Your task to perform on an android device: Open accessibility settings Image 0: 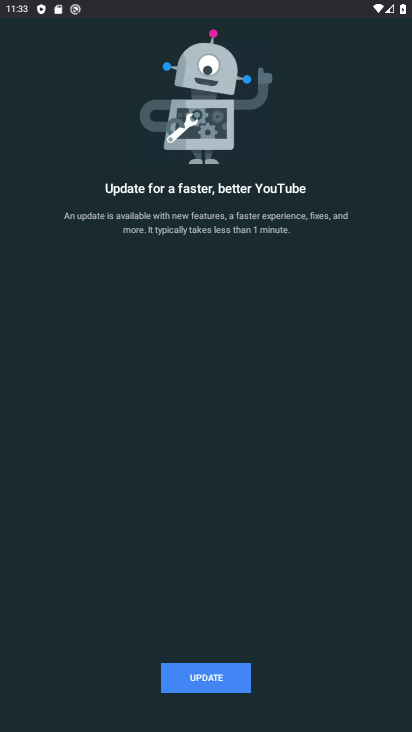
Step 0: press home button
Your task to perform on an android device: Open accessibility settings Image 1: 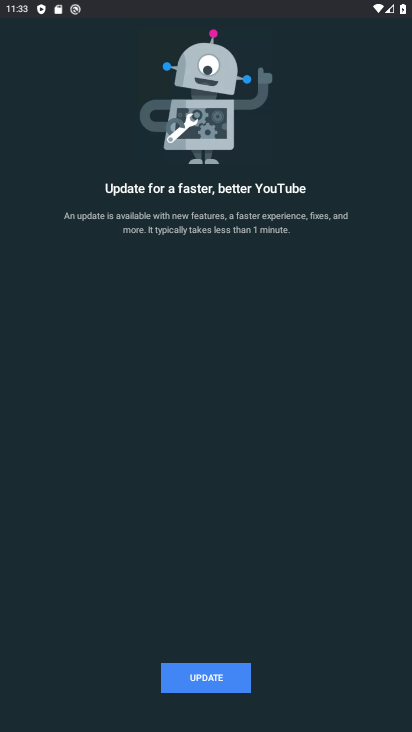
Step 1: press home button
Your task to perform on an android device: Open accessibility settings Image 2: 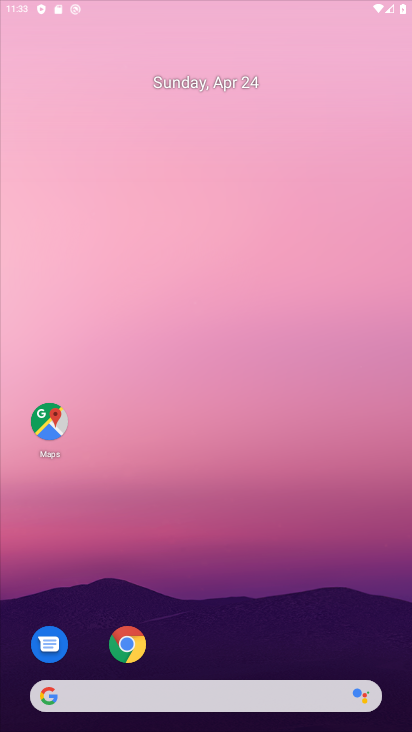
Step 2: press home button
Your task to perform on an android device: Open accessibility settings Image 3: 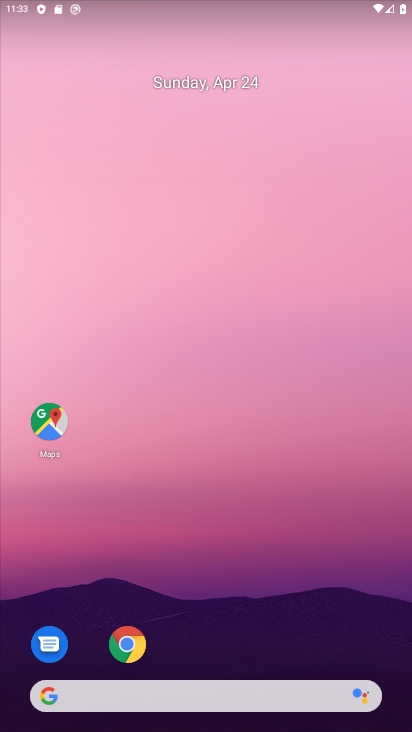
Step 3: press home button
Your task to perform on an android device: Open accessibility settings Image 4: 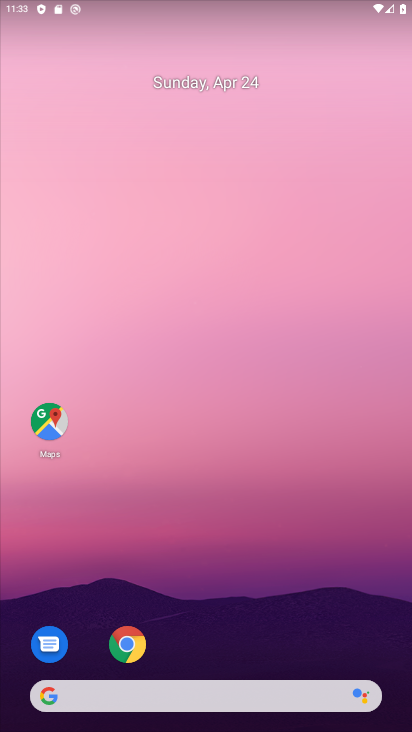
Step 4: press home button
Your task to perform on an android device: Open accessibility settings Image 5: 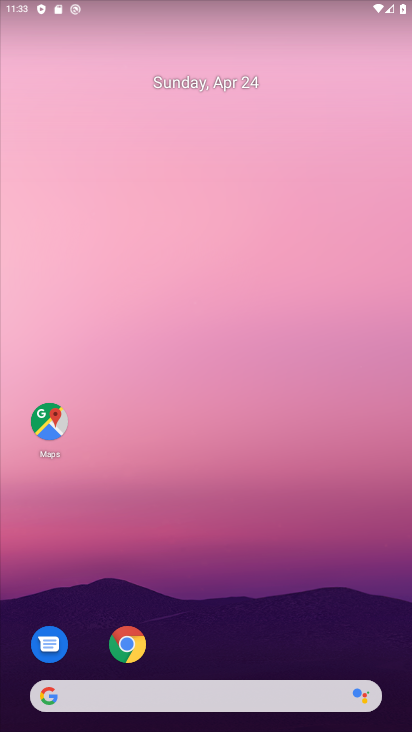
Step 5: click (170, 1)
Your task to perform on an android device: Open accessibility settings Image 6: 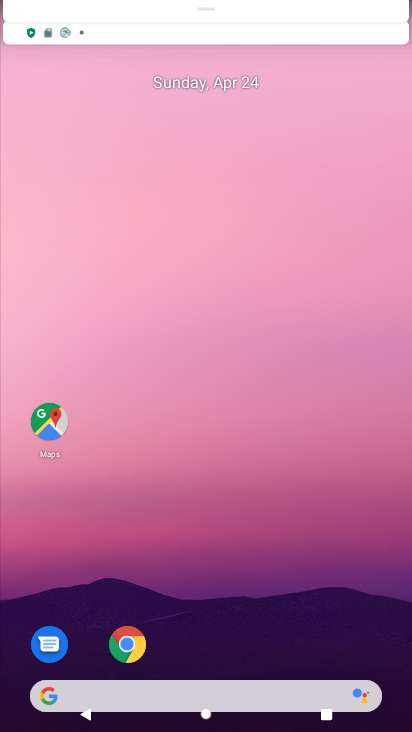
Step 6: drag from (235, 614) to (85, 35)
Your task to perform on an android device: Open accessibility settings Image 7: 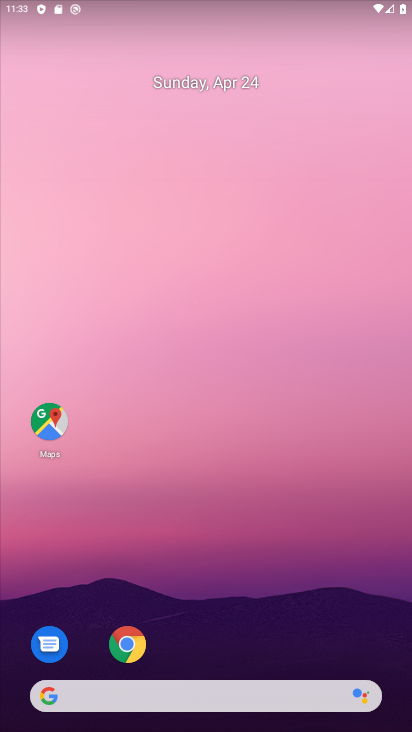
Step 7: drag from (251, 712) to (95, 3)
Your task to perform on an android device: Open accessibility settings Image 8: 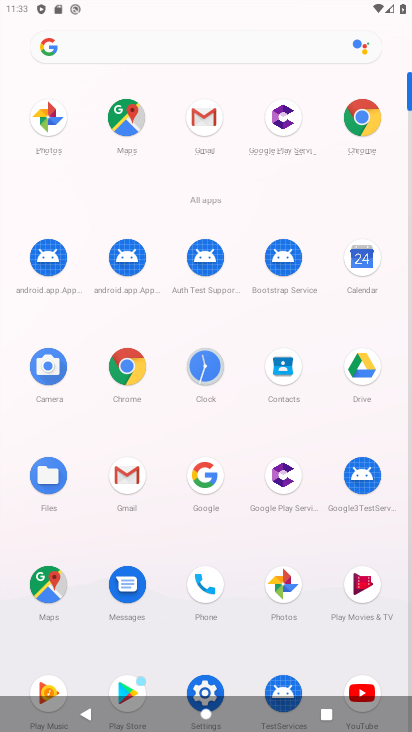
Step 8: drag from (188, 388) to (110, 26)
Your task to perform on an android device: Open accessibility settings Image 9: 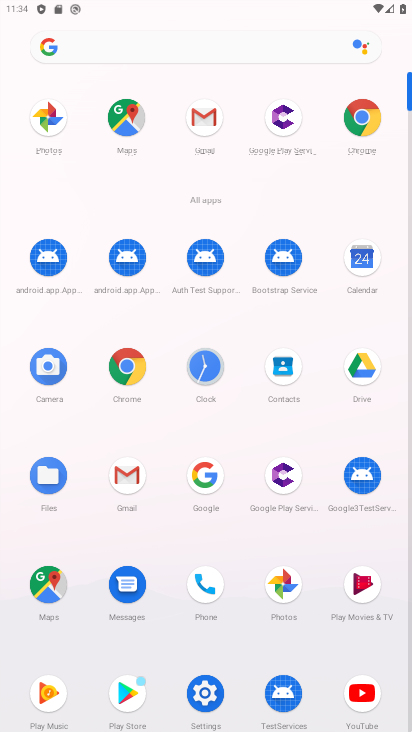
Step 9: click (202, 681)
Your task to perform on an android device: Open accessibility settings Image 10: 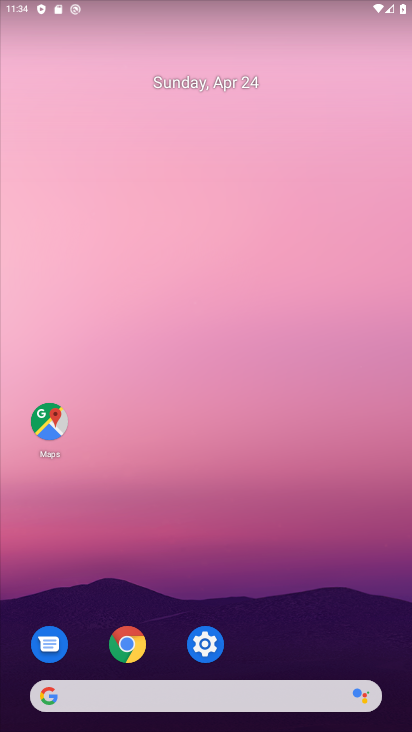
Step 10: drag from (194, 644) to (103, 34)
Your task to perform on an android device: Open accessibility settings Image 11: 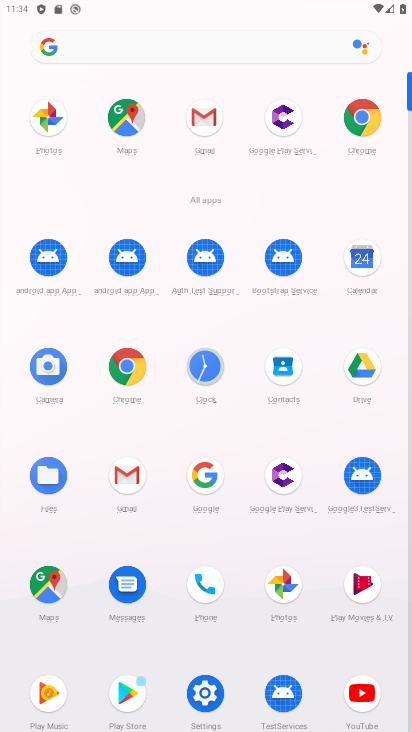
Step 11: click (210, 687)
Your task to perform on an android device: Open accessibility settings Image 12: 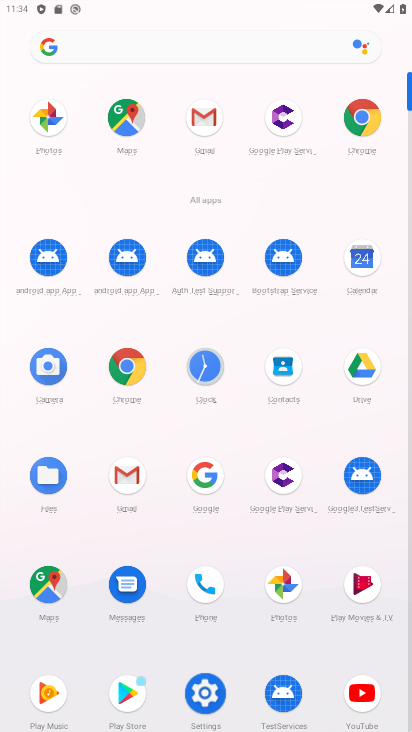
Step 12: click (197, 694)
Your task to perform on an android device: Open accessibility settings Image 13: 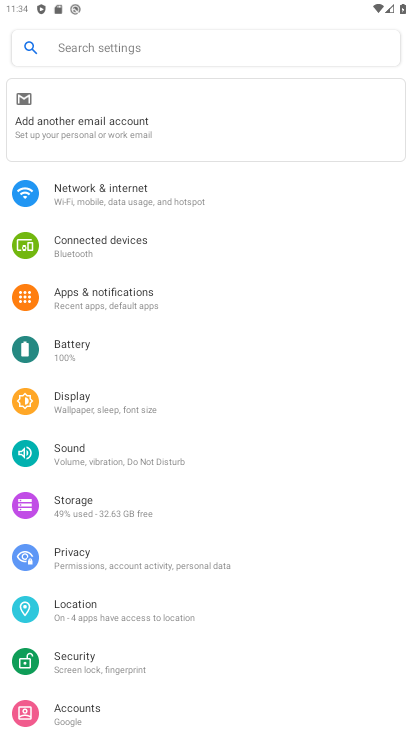
Step 13: drag from (148, 669) to (108, 74)
Your task to perform on an android device: Open accessibility settings Image 14: 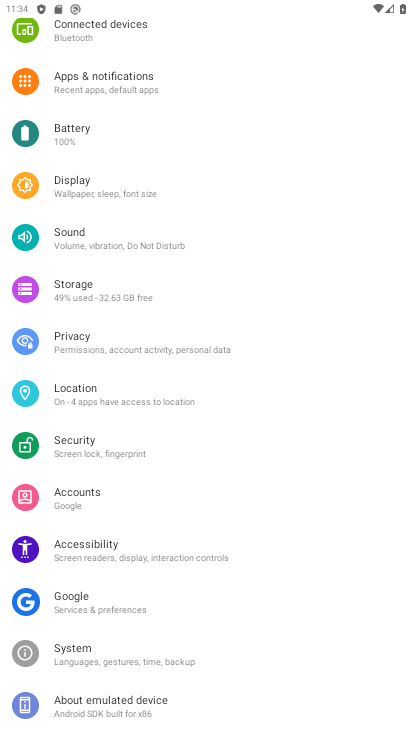
Step 14: click (85, 554)
Your task to perform on an android device: Open accessibility settings Image 15: 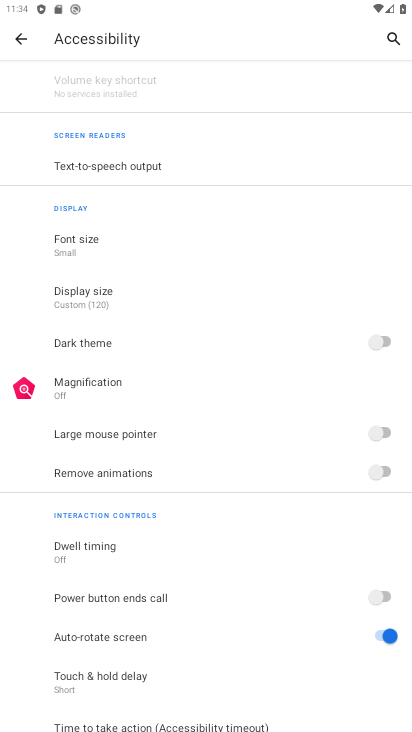
Step 15: task complete